Your task to perform on an android device: Go to Amazon Image 0: 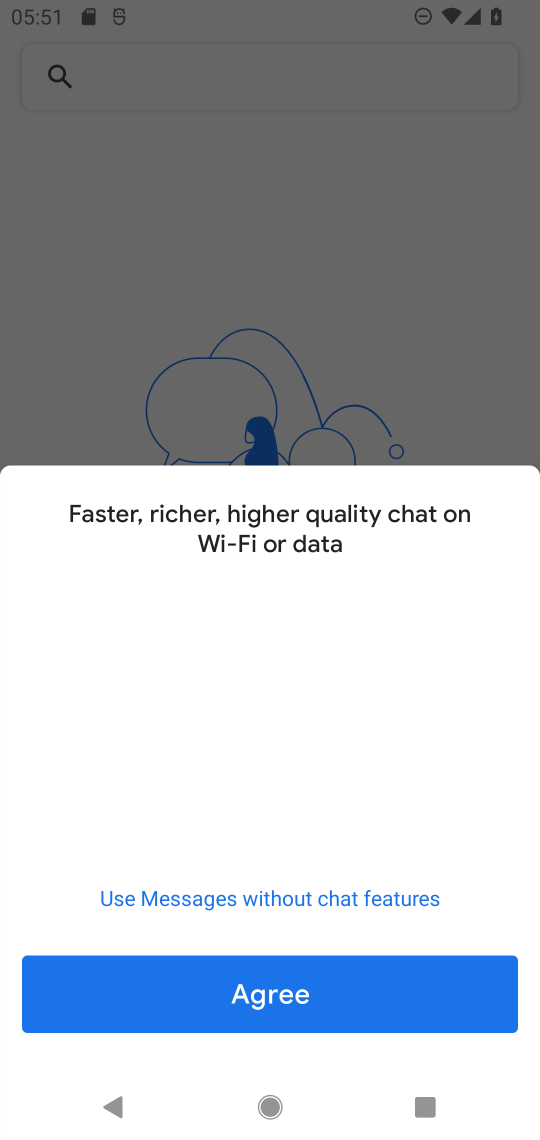
Step 0: press home button
Your task to perform on an android device: Go to Amazon Image 1: 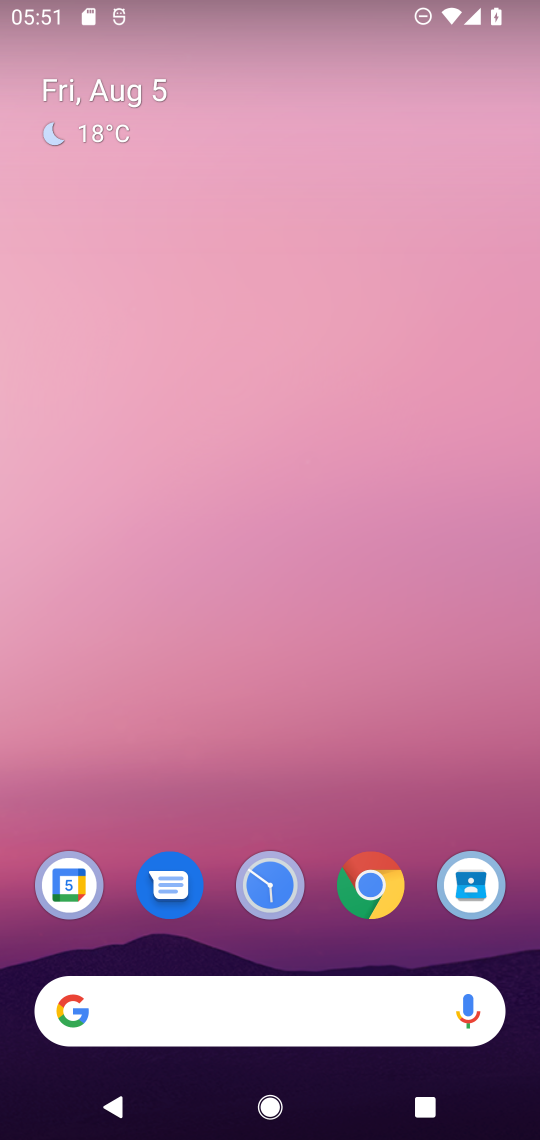
Step 1: click (372, 887)
Your task to perform on an android device: Go to Amazon Image 2: 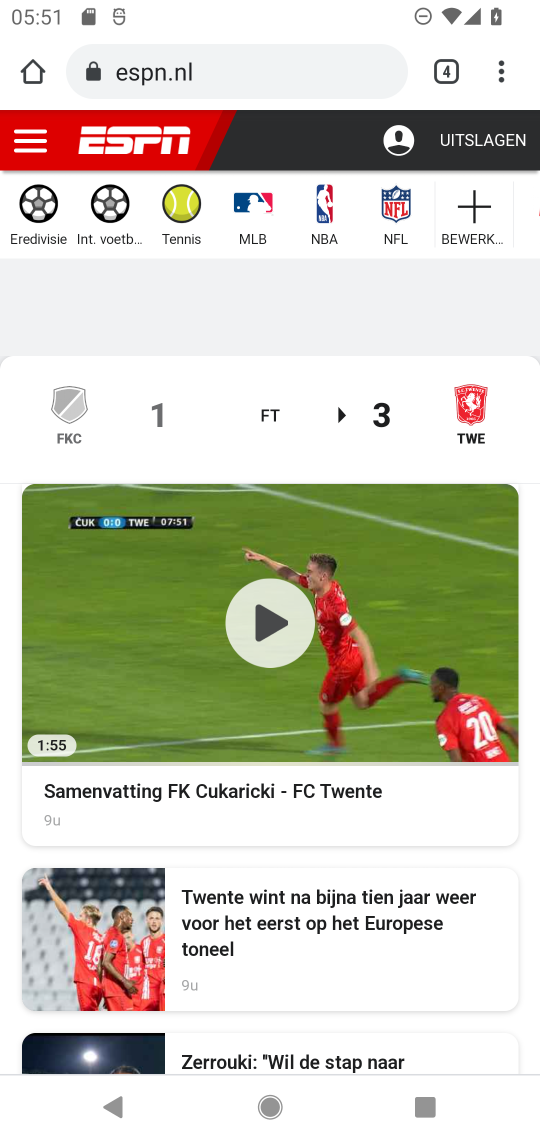
Step 2: click (498, 80)
Your task to perform on an android device: Go to Amazon Image 3: 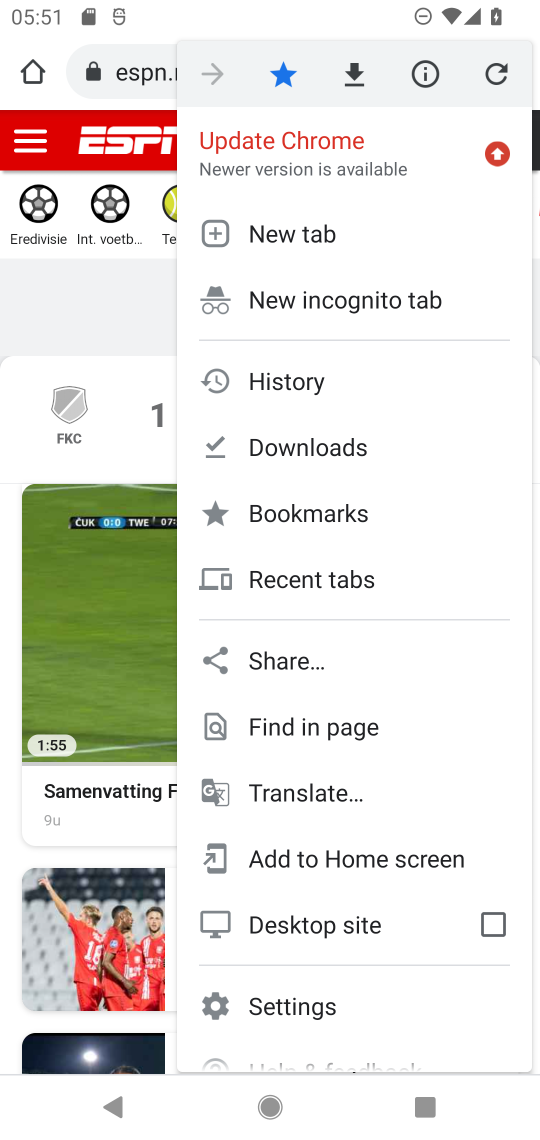
Step 3: click (292, 233)
Your task to perform on an android device: Go to Amazon Image 4: 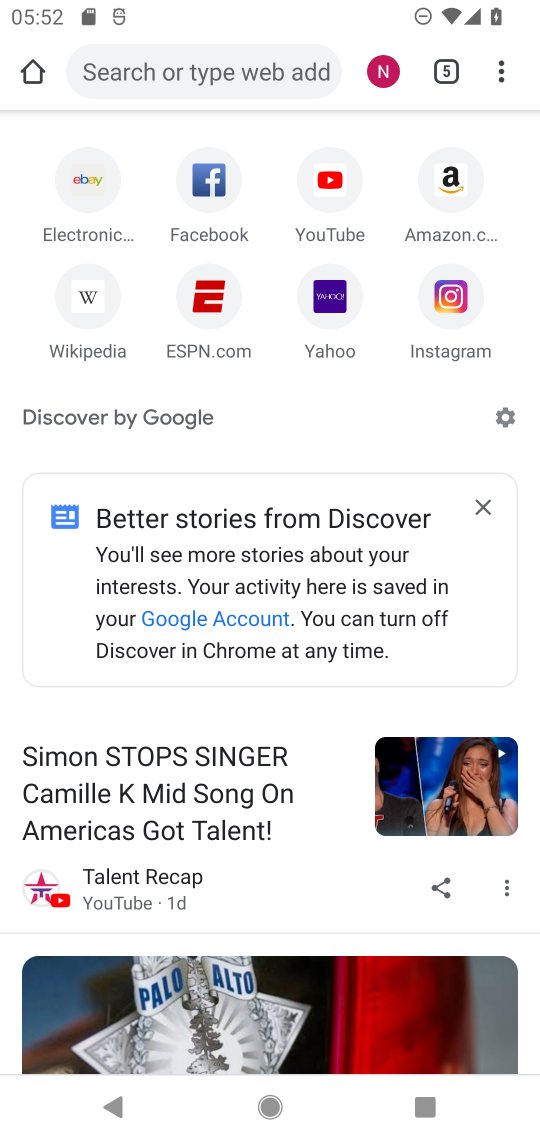
Step 4: click (445, 182)
Your task to perform on an android device: Go to Amazon Image 5: 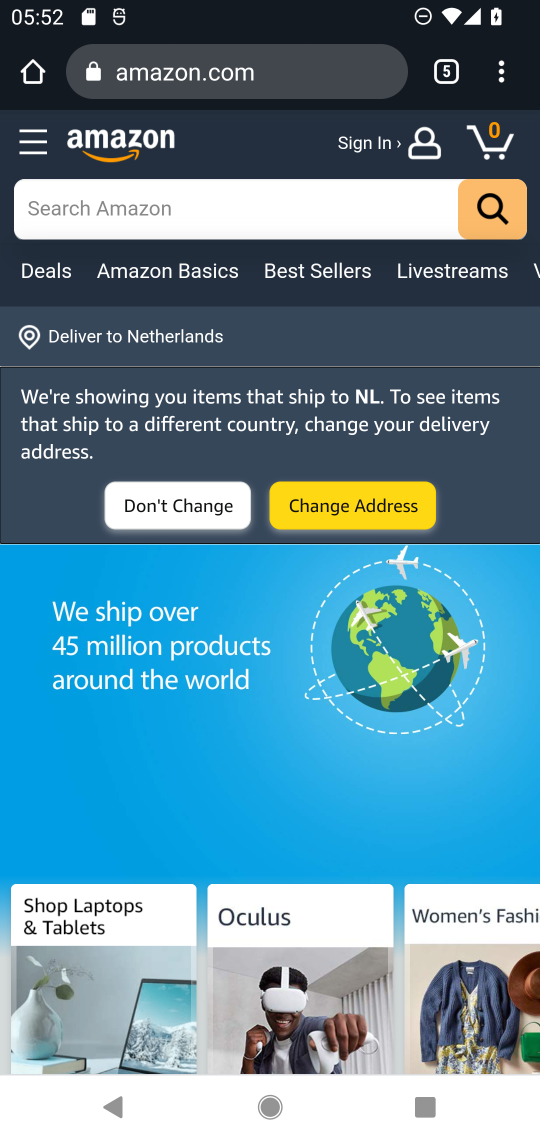
Step 5: task complete